Your task to perform on an android device: delete the emails in spam in the gmail app Image 0: 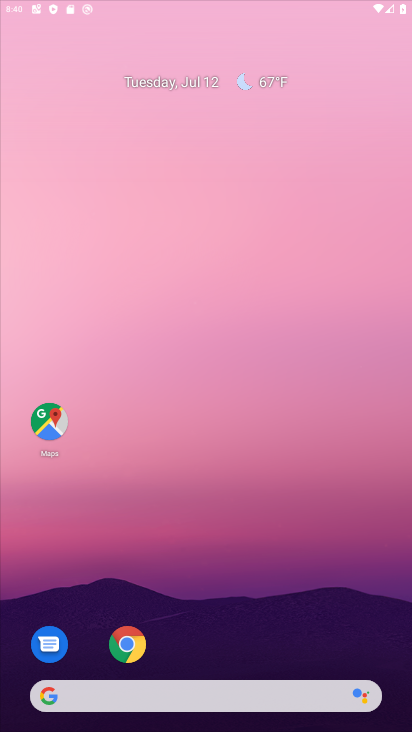
Step 0: click (233, 191)
Your task to perform on an android device: delete the emails in spam in the gmail app Image 1: 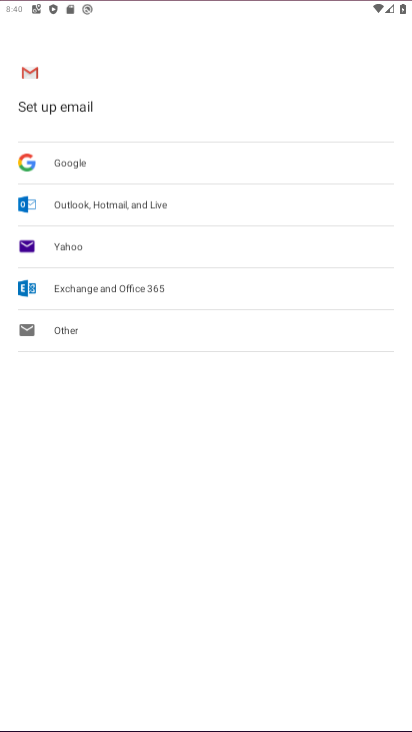
Step 1: drag from (191, 648) to (246, 148)
Your task to perform on an android device: delete the emails in spam in the gmail app Image 2: 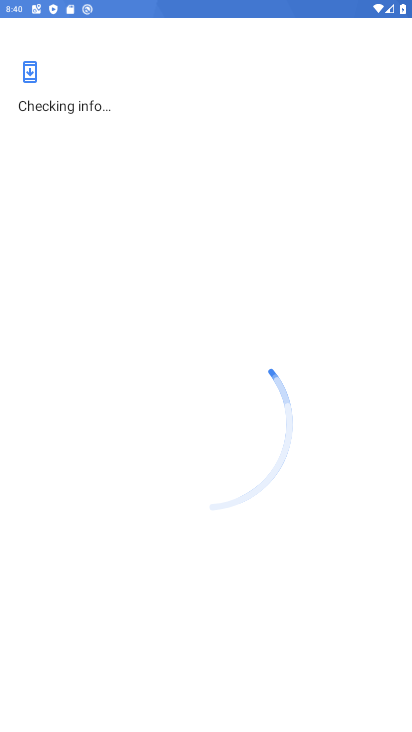
Step 2: press home button
Your task to perform on an android device: delete the emails in spam in the gmail app Image 3: 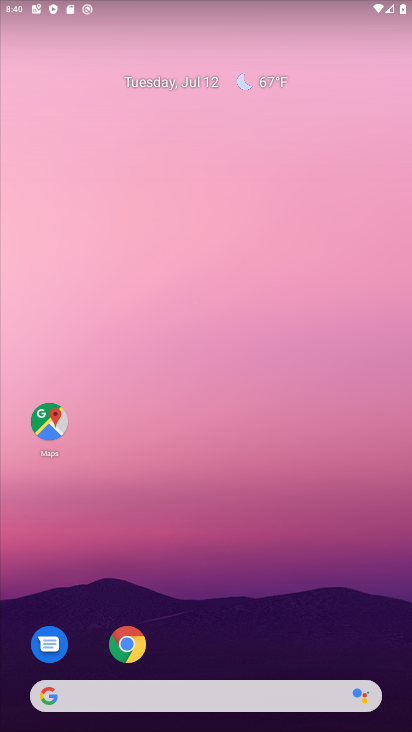
Step 3: drag from (193, 660) to (177, 155)
Your task to perform on an android device: delete the emails in spam in the gmail app Image 4: 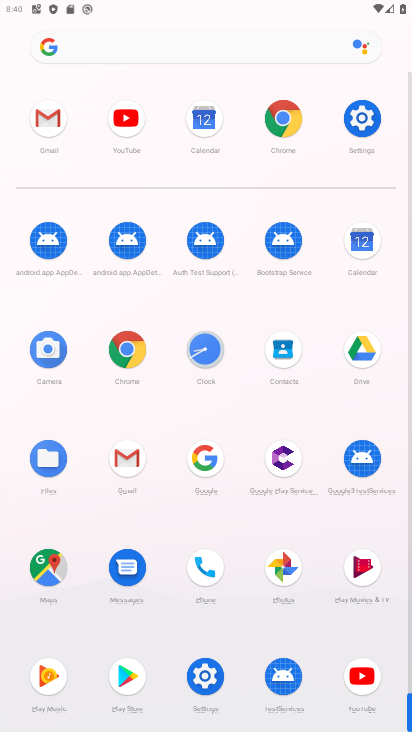
Step 4: click (123, 459)
Your task to perform on an android device: delete the emails in spam in the gmail app Image 5: 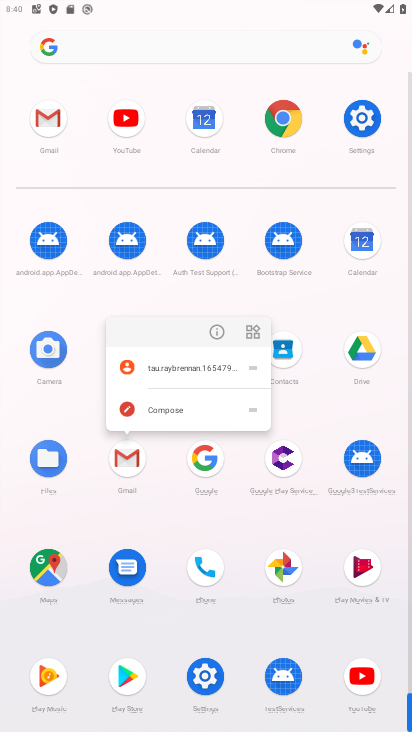
Step 5: click (215, 325)
Your task to perform on an android device: delete the emails in spam in the gmail app Image 6: 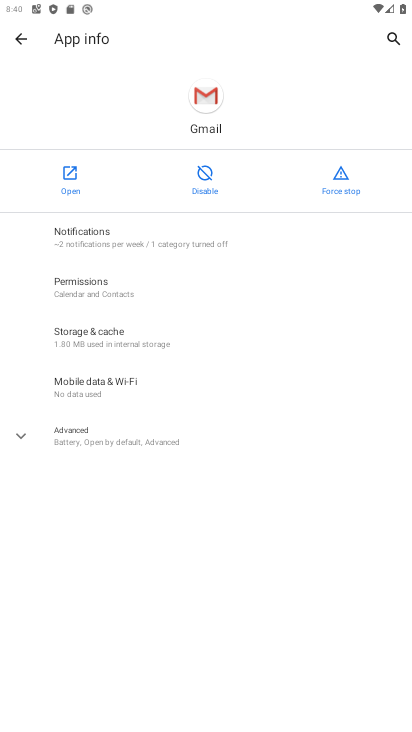
Step 6: click (67, 182)
Your task to perform on an android device: delete the emails in spam in the gmail app Image 7: 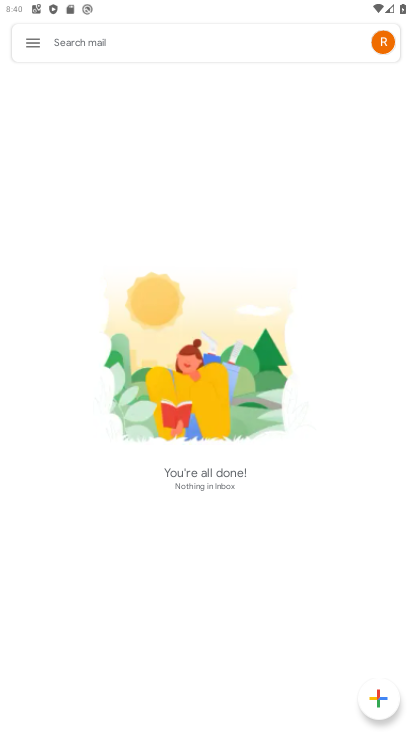
Step 7: click (32, 43)
Your task to perform on an android device: delete the emails in spam in the gmail app Image 8: 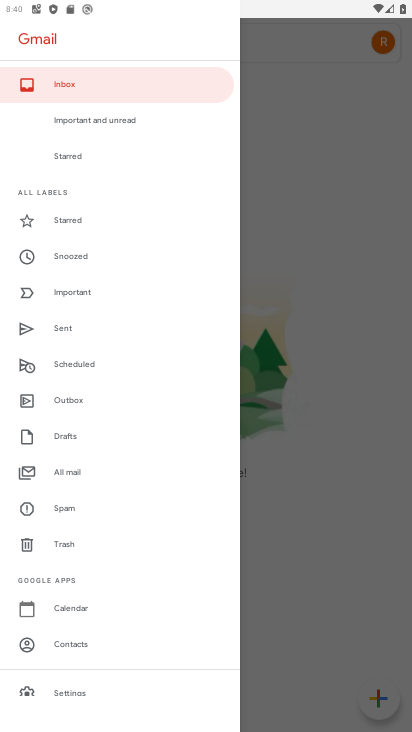
Step 8: click (62, 506)
Your task to perform on an android device: delete the emails in spam in the gmail app Image 9: 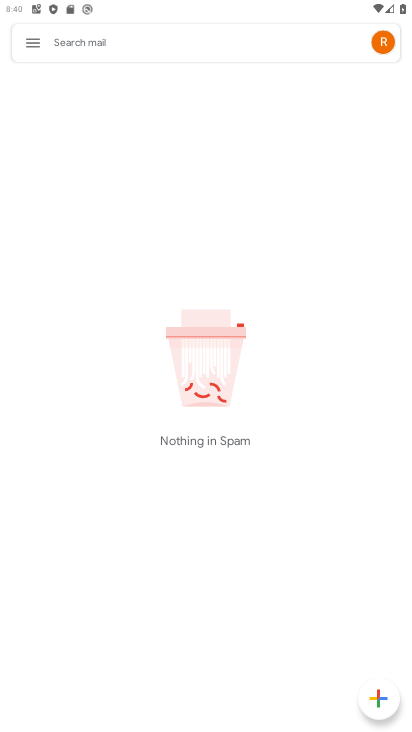
Step 9: task complete